Your task to perform on an android device: Go to Maps Image 0: 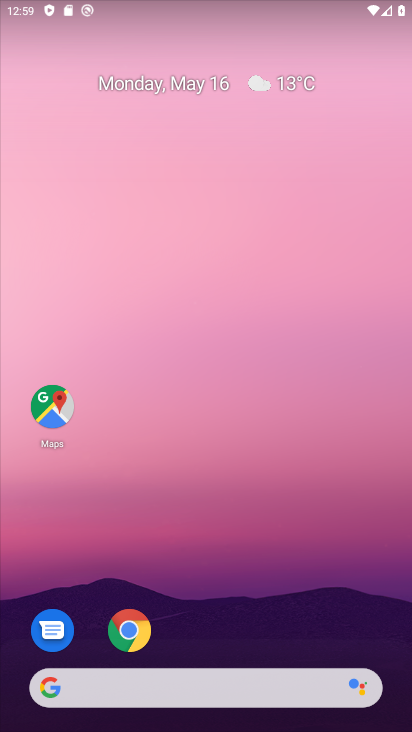
Step 0: click (51, 395)
Your task to perform on an android device: Go to Maps Image 1: 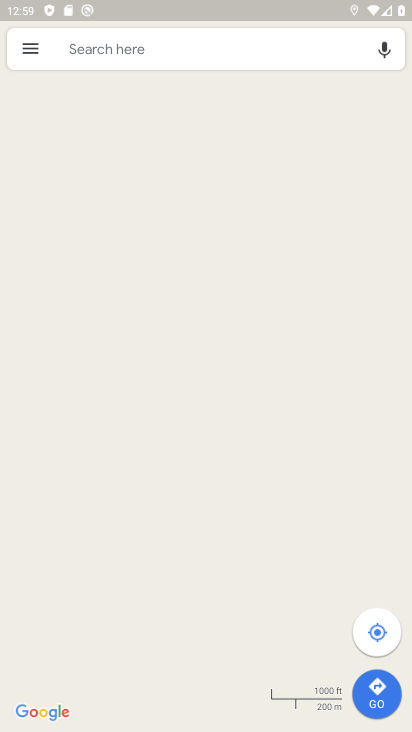
Step 1: task complete